Your task to perform on an android device: Open location settings Image 0: 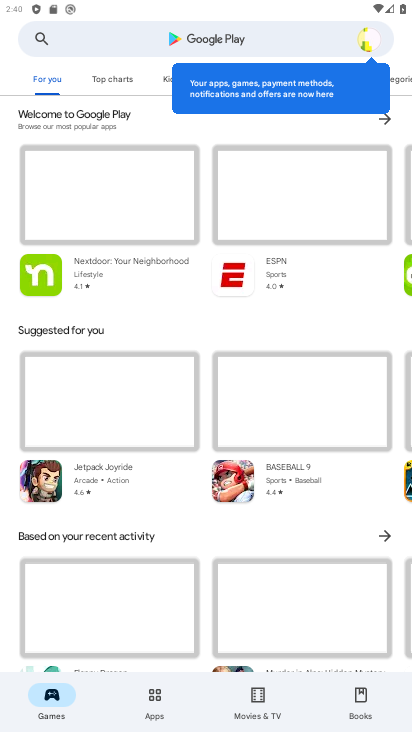
Step 0: press home button
Your task to perform on an android device: Open location settings Image 1: 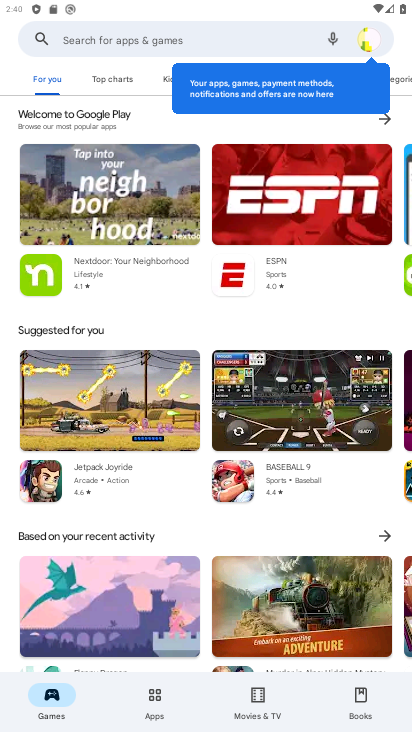
Step 1: press home button
Your task to perform on an android device: Open location settings Image 2: 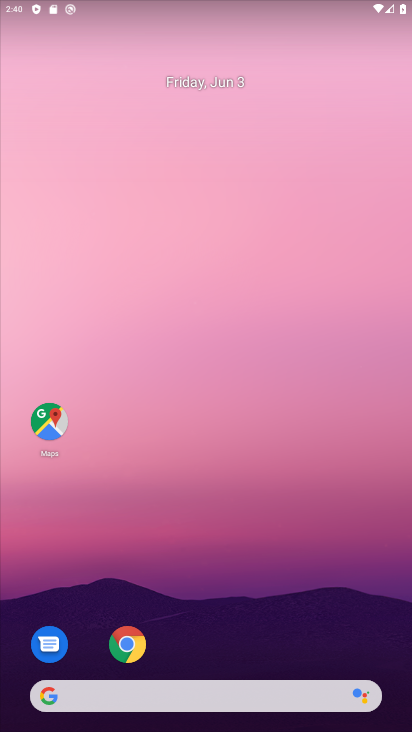
Step 2: drag from (210, 611) to (296, 106)
Your task to perform on an android device: Open location settings Image 3: 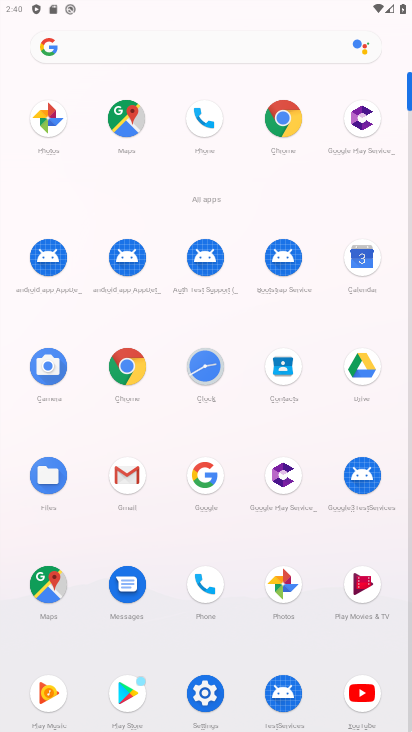
Step 3: click (206, 696)
Your task to perform on an android device: Open location settings Image 4: 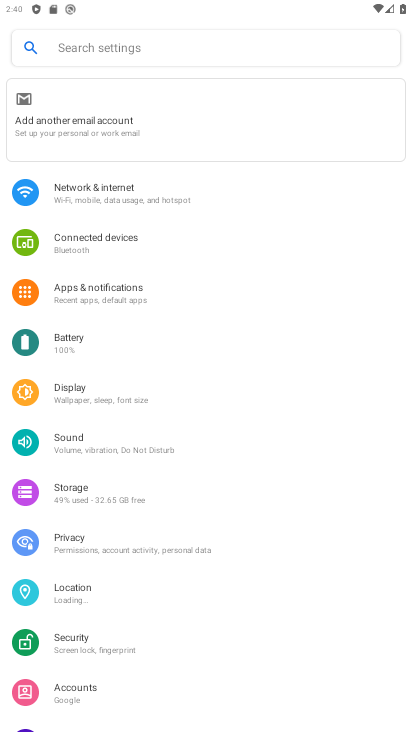
Step 4: click (82, 588)
Your task to perform on an android device: Open location settings Image 5: 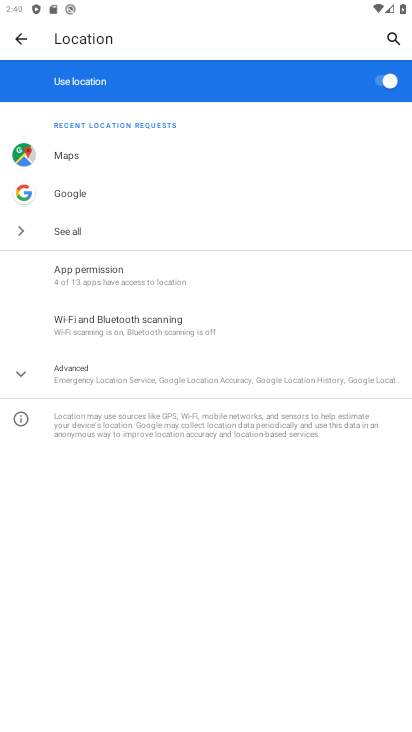
Step 5: task complete